Your task to perform on an android device: Search for vegetarian restaurants on Maps Image 0: 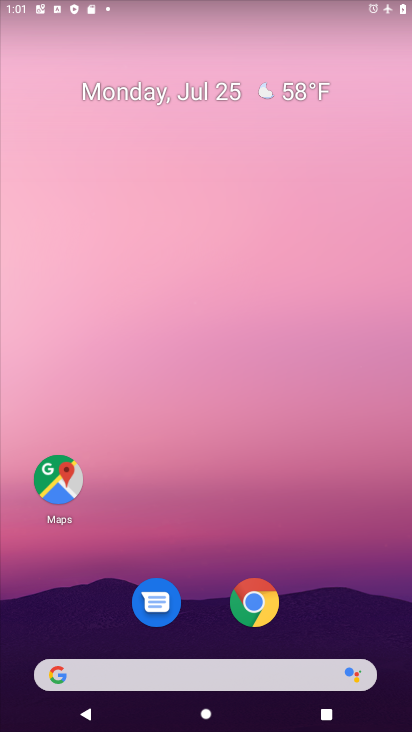
Step 0: click (41, 491)
Your task to perform on an android device: Search for vegetarian restaurants on Maps Image 1: 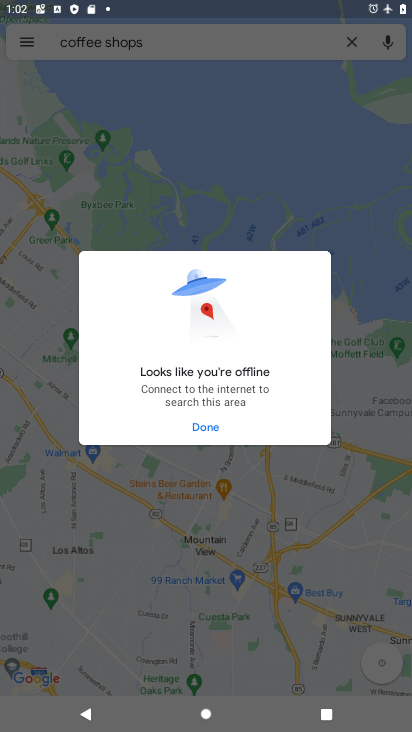
Step 1: task complete